Your task to perform on an android device: toggle priority inbox in the gmail app Image 0: 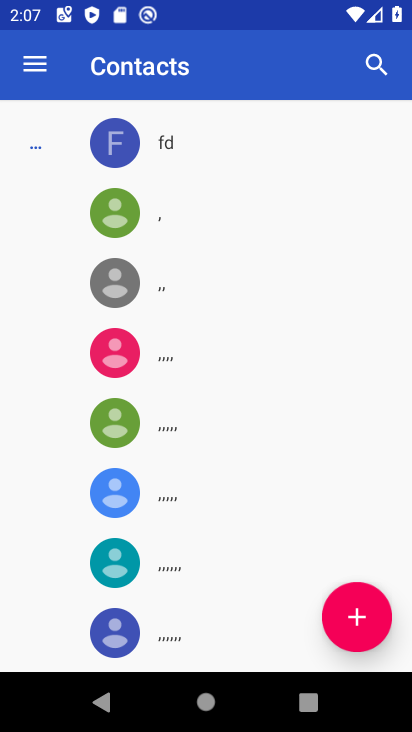
Step 0: press home button
Your task to perform on an android device: toggle priority inbox in the gmail app Image 1: 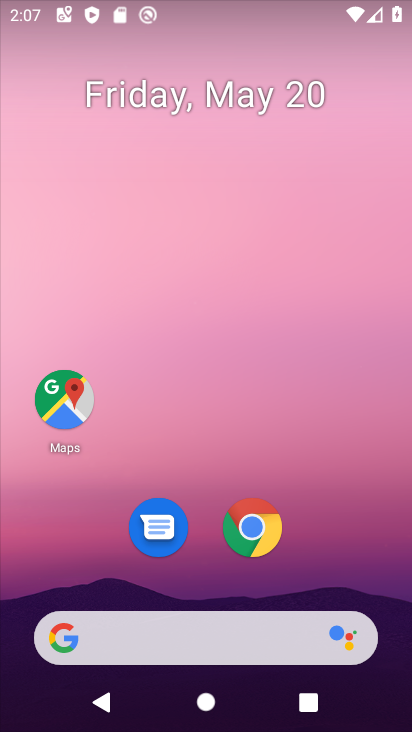
Step 1: drag from (267, 702) to (300, 148)
Your task to perform on an android device: toggle priority inbox in the gmail app Image 2: 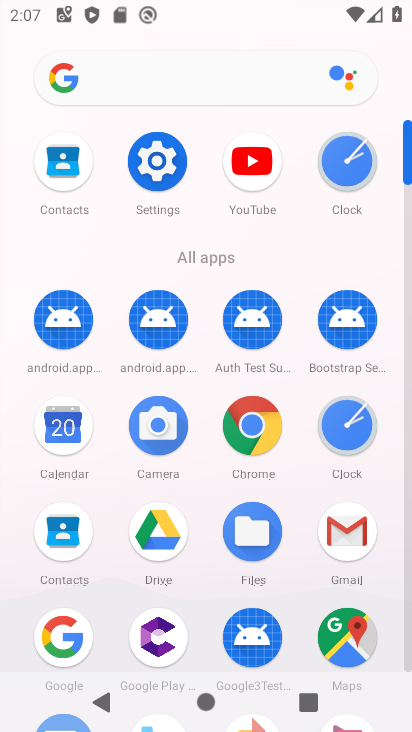
Step 2: click (343, 541)
Your task to perform on an android device: toggle priority inbox in the gmail app Image 3: 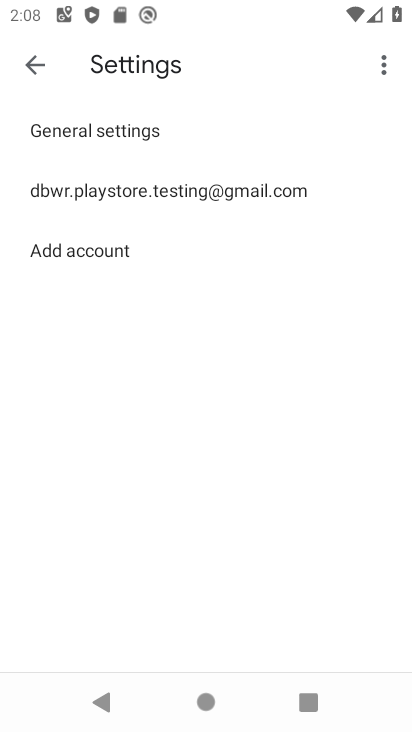
Step 3: click (243, 184)
Your task to perform on an android device: toggle priority inbox in the gmail app Image 4: 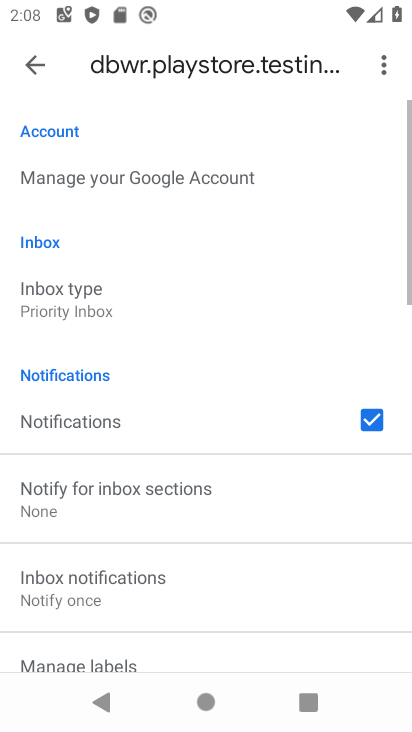
Step 4: click (46, 297)
Your task to perform on an android device: toggle priority inbox in the gmail app Image 5: 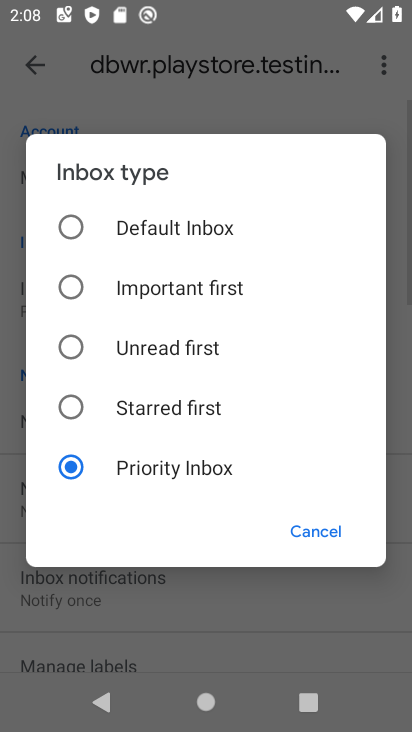
Step 5: click (188, 232)
Your task to perform on an android device: toggle priority inbox in the gmail app Image 6: 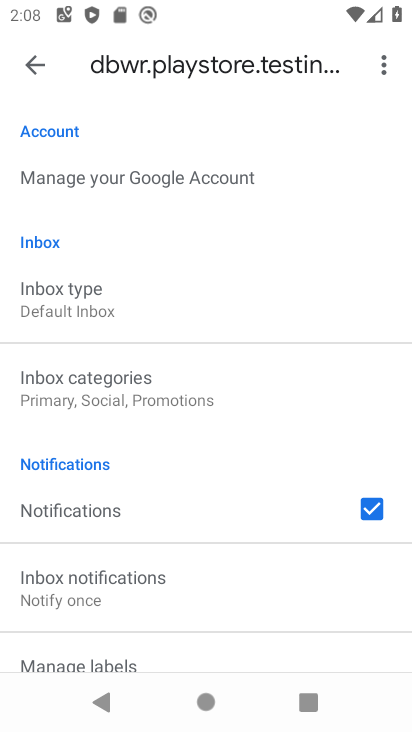
Step 6: task complete